Your task to perform on an android device: add a label to a message in the gmail app Image 0: 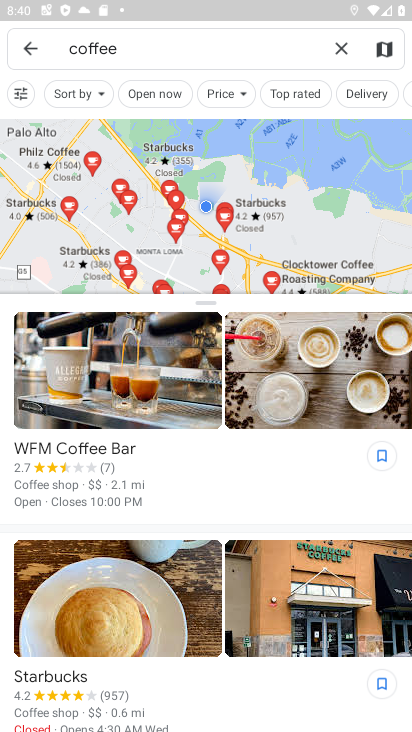
Step 0: press home button
Your task to perform on an android device: add a label to a message in the gmail app Image 1: 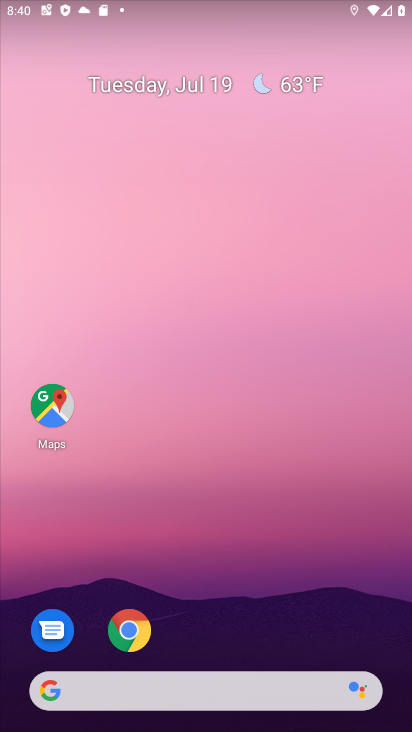
Step 1: drag from (218, 679) to (211, 184)
Your task to perform on an android device: add a label to a message in the gmail app Image 2: 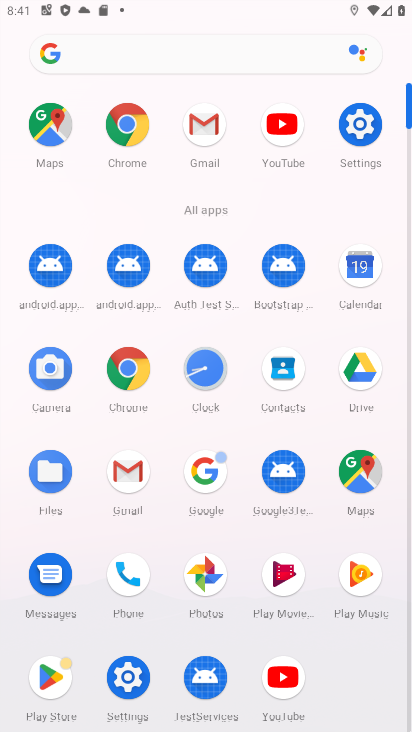
Step 2: click (203, 121)
Your task to perform on an android device: add a label to a message in the gmail app Image 3: 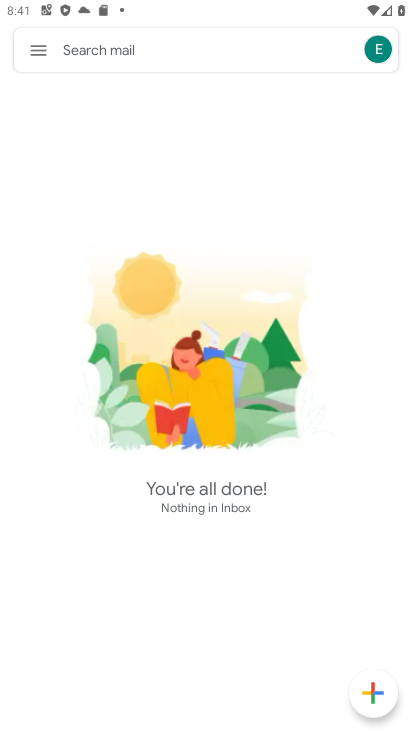
Step 3: click (37, 50)
Your task to perform on an android device: add a label to a message in the gmail app Image 4: 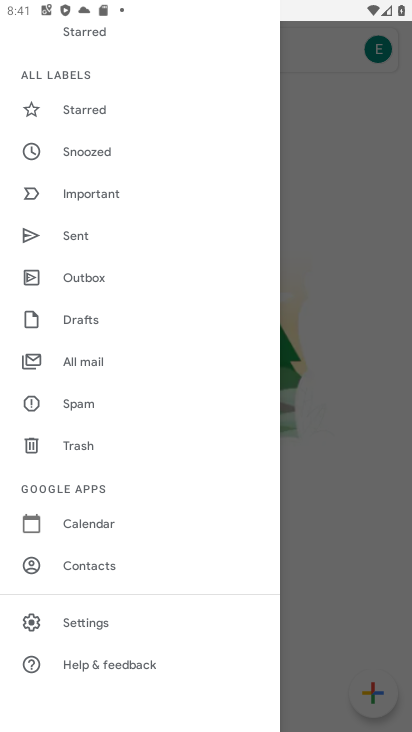
Step 4: click (85, 352)
Your task to perform on an android device: add a label to a message in the gmail app Image 5: 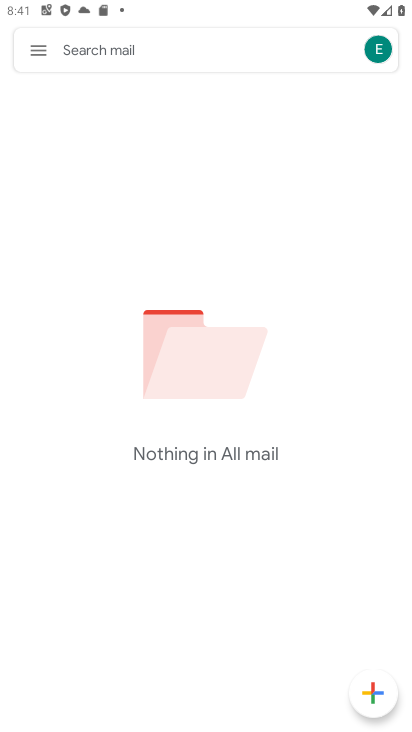
Step 5: click (42, 48)
Your task to perform on an android device: add a label to a message in the gmail app Image 6: 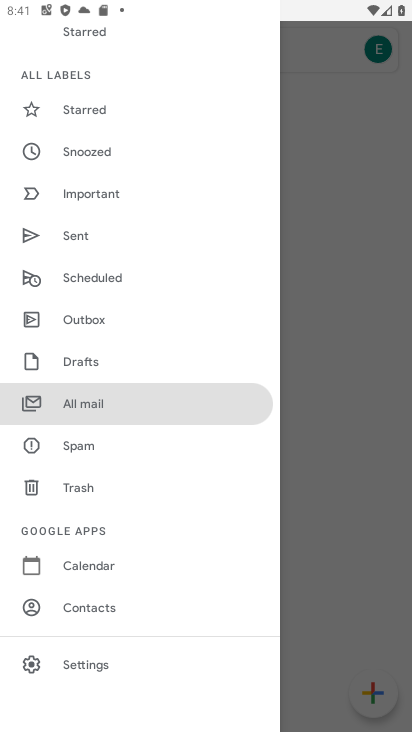
Step 6: click (87, 30)
Your task to perform on an android device: add a label to a message in the gmail app Image 7: 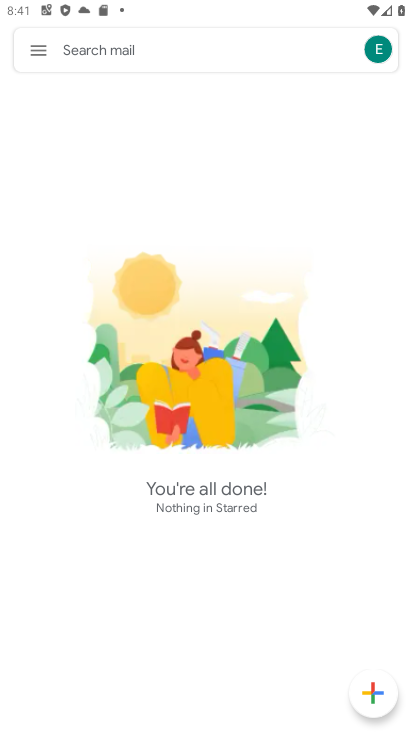
Step 7: click (33, 52)
Your task to perform on an android device: add a label to a message in the gmail app Image 8: 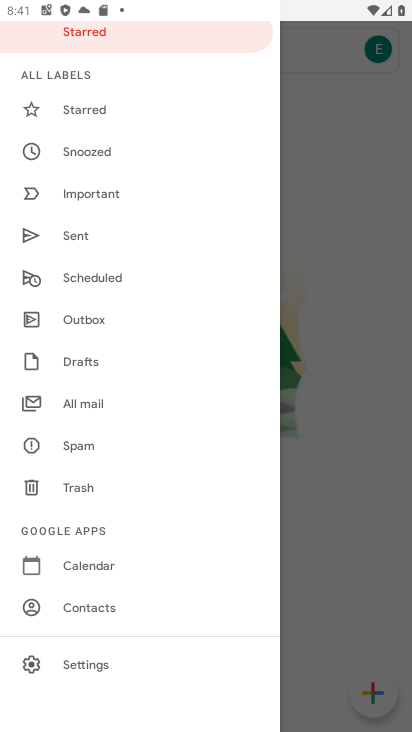
Step 8: click (80, 151)
Your task to perform on an android device: add a label to a message in the gmail app Image 9: 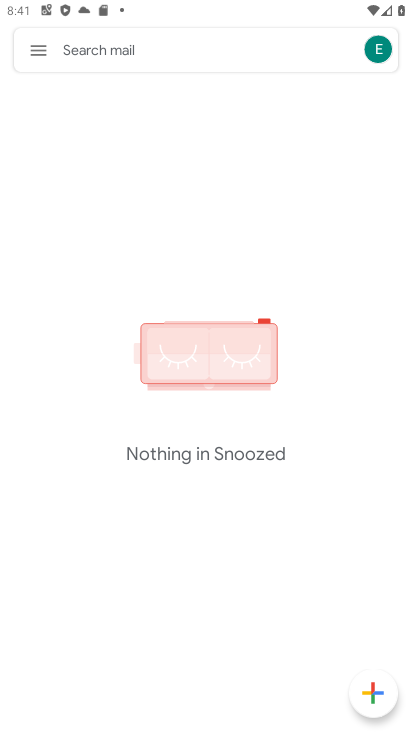
Step 9: click (42, 50)
Your task to perform on an android device: add a label to a message in the gmail app Image 10: 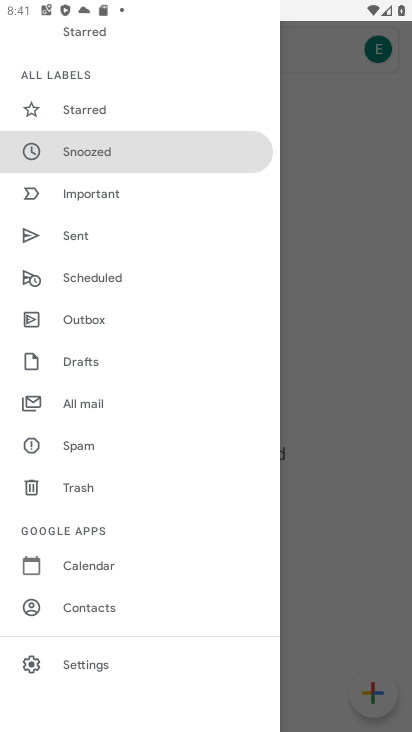
Step 10: click (97, 188)
Your task to perform on an android device: add a label to a message in the gmail app Image 11: 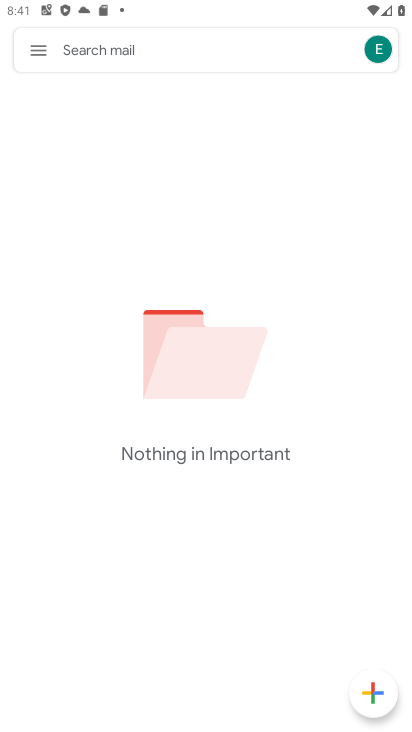
Step 11: click (42, 53)
Your task to perform on an android device: add a label to a message in the gmail app Image 12: 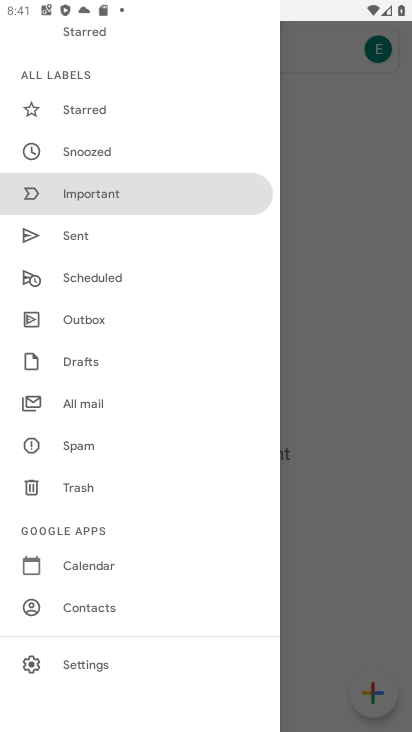
Step 12: click (80, 234)
Your task to perform on an android device: add a label to a message in the gmail app Image 13: 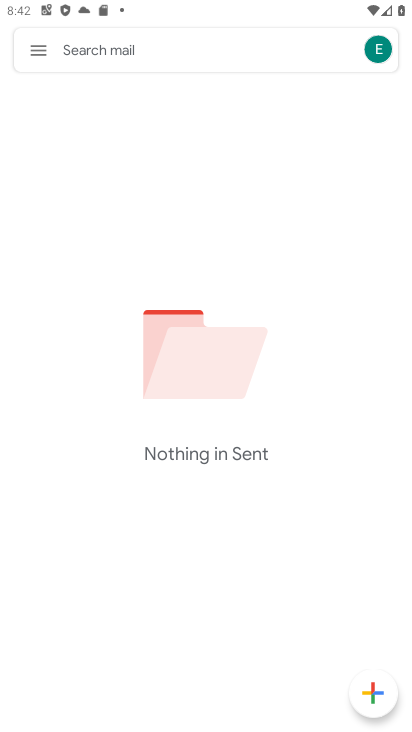
Step 13: task complete